Your task to perform on an android device: Go to battery settings Image 0: 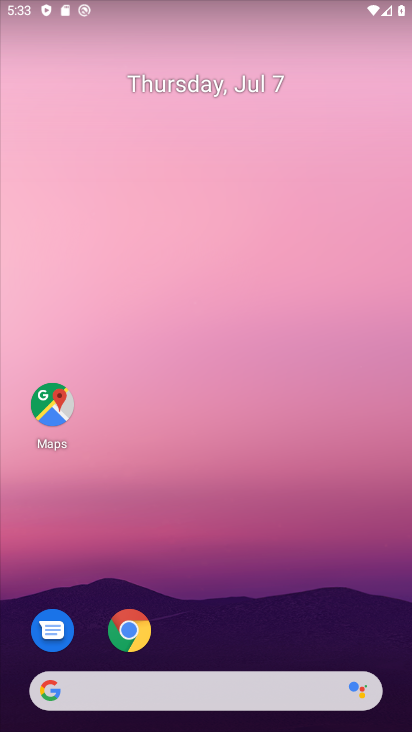
Step 0: drag from (219, 648) to (174, 175)
Your task to perform on an android device: Go to battery settings Image 1: 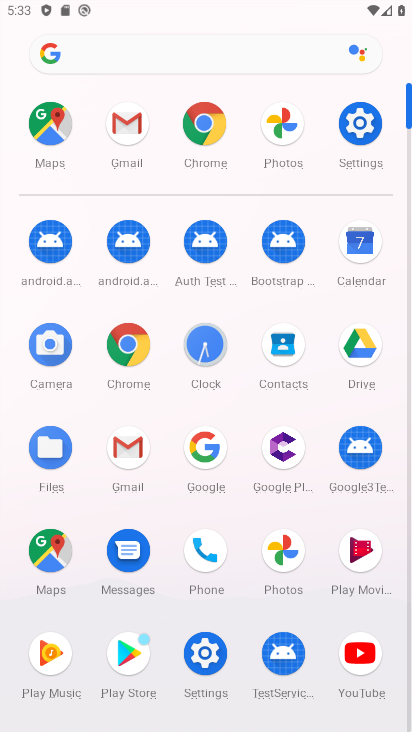
Step 1: click (357, 123)
Your task to perform on an android device: Go to battery settings Image 2: 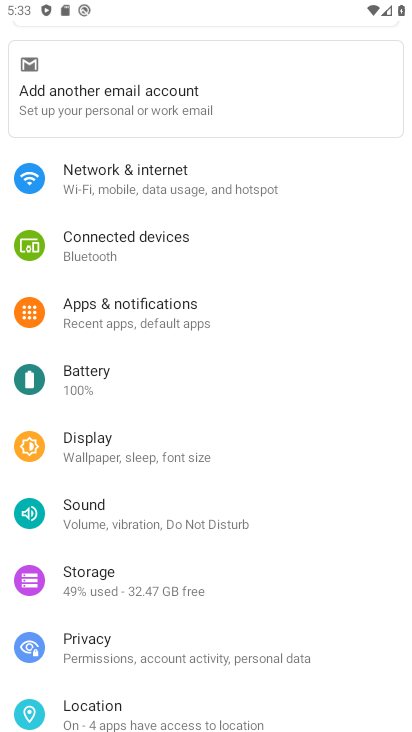
Step 2: click (92, 372)
Your task to perform on an android device: Go to battery settings Image 3: 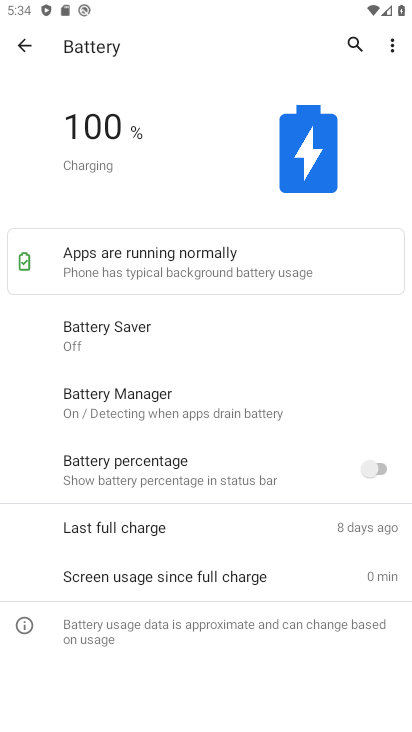
Step 3: task complete